Your task to perform on an android device: toggle airplane mode Image 0: 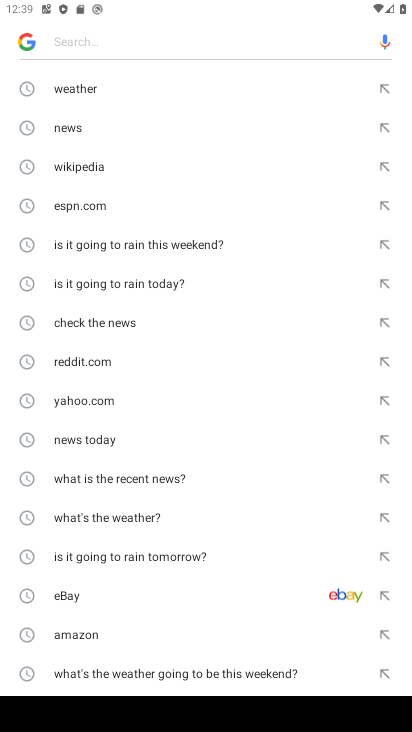
Step 0: press home button
Your task to perform on an android device: toggle airplane mode Image 1: 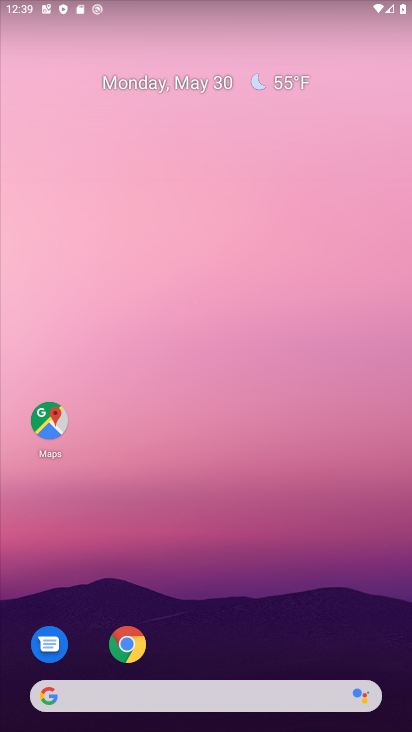
Step 1: press home button
Your task to perform on an android device: toggle airplane mode Image 2: 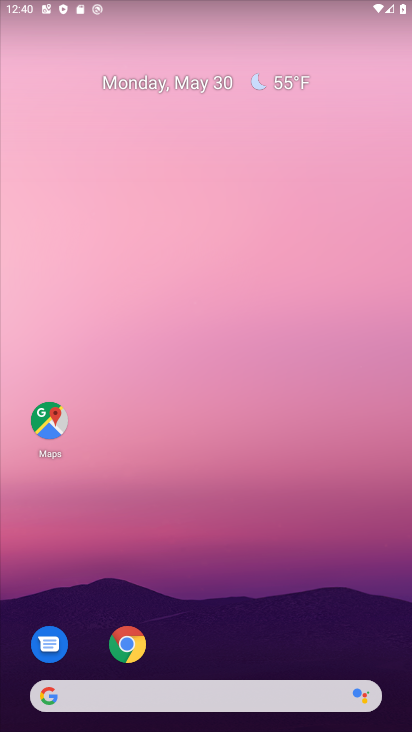
Step 2: drag from (373, 652) to (126, 1)
Your task to perform on an android device: toggle airplane mode Image 3: 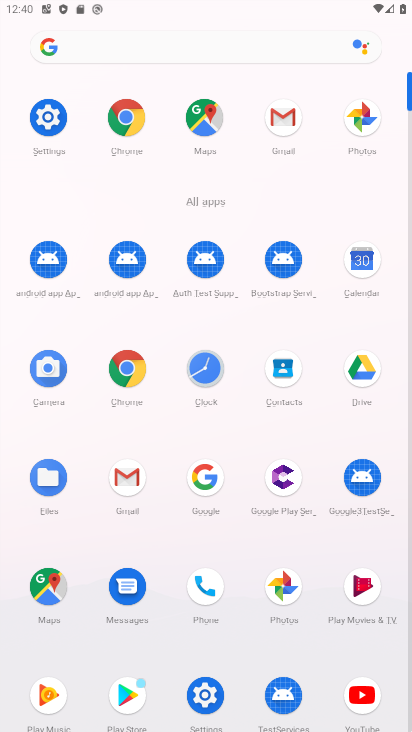
Step 3: click (58, 136)
Your task to perform on an android device: toggle airplane mode Image 4: 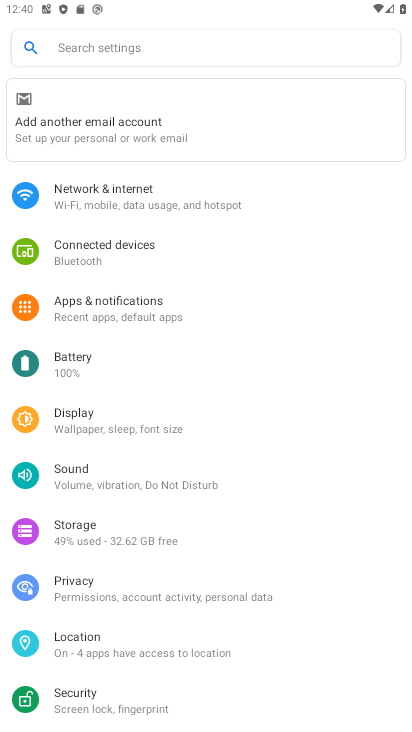
Step 4: click (170, 197)
Your task to perform on an android device: toggle airplane mode Image 5: 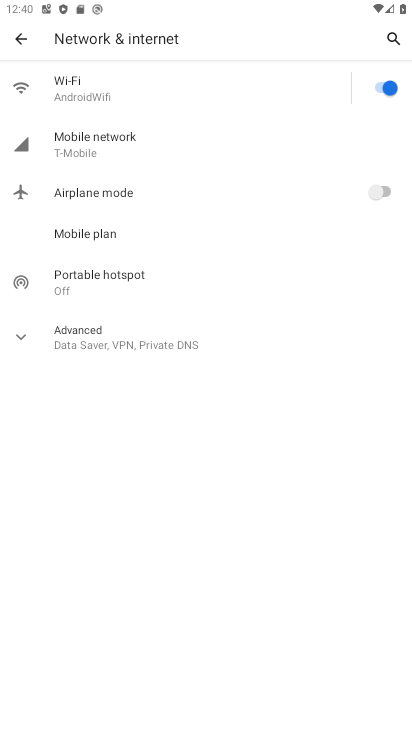
Step 5: click (371, 115)
Your task to perform on an android device: toggle airplane mode Image 6: 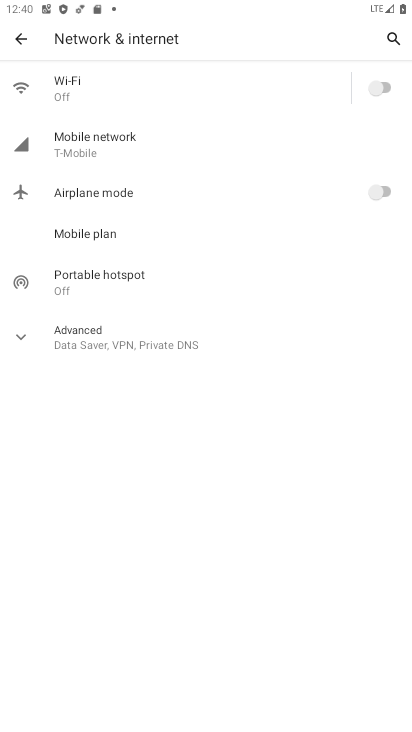
Step 6: task complete